Your task to perform on an android device: What's the weather today? Image 0: 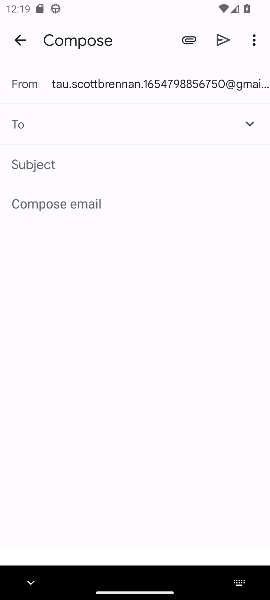
Step 0: press home button
Your task to perform on an android device: What's the weather today? Image 1: 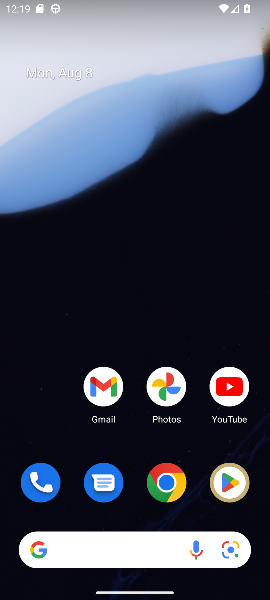
Step 1: drag from (153, 547) to (208, 358)
Your task to perform on an android device: What's the weather today? Image 2: 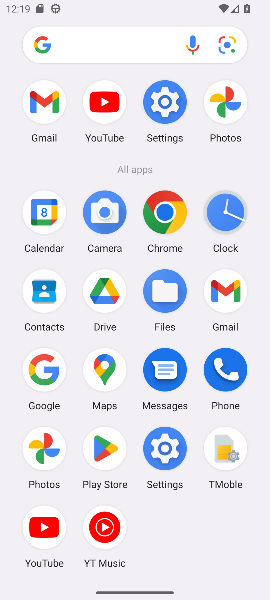
Step 2: click (47, 366)
Your task to perform on an android device: What's the weather today? Image 3: 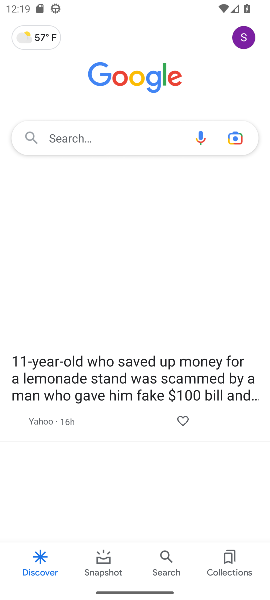
Step 3: click (86, 146)
Your task to perform on an android device: What's the weather today? Image 4: 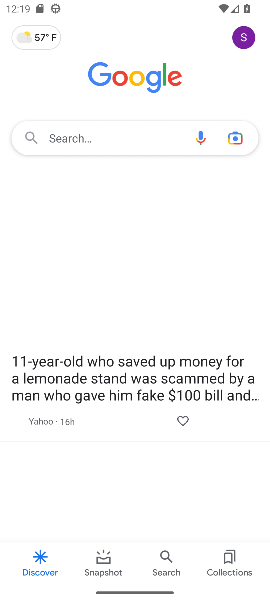
Step 4: click (86, 146)
Your task to perform on an android device: What's the weather today? Image 5: 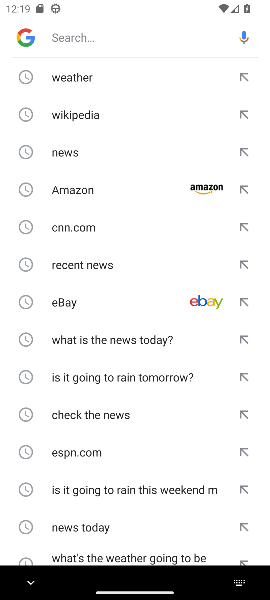
Step 5: type "whats the weather today"
Your task to perform on an android device: What's the weather today? Image 6: 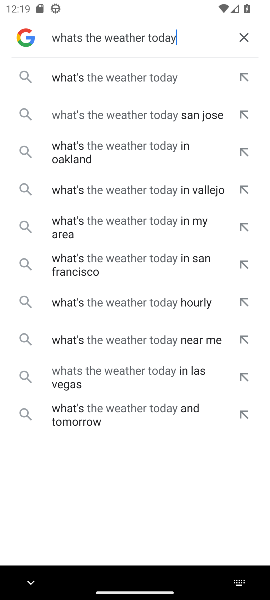
Step 6: click (157, 81)
Your task to perform on an android device: What's the weather today? Image 7: 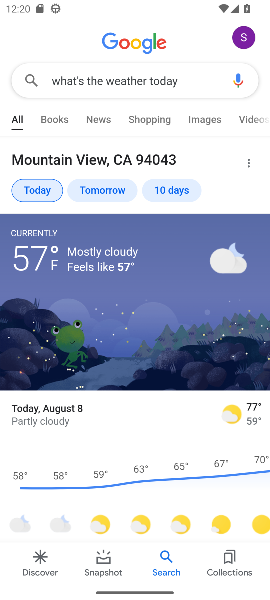
Step 7: task complete